Your task to perform on an android device: change the clock style Image 0: 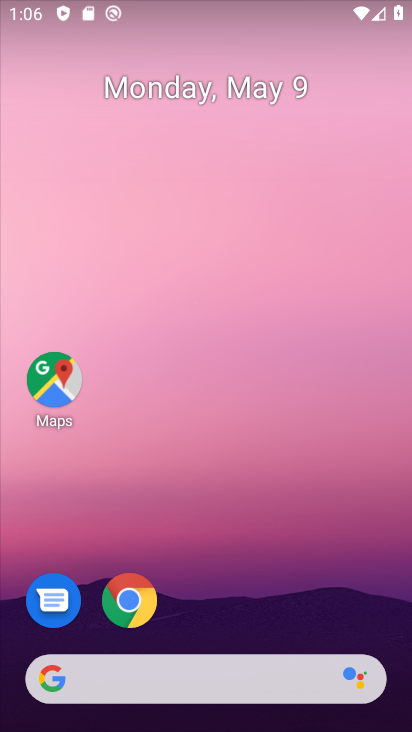
Step 0: press home button
Your task to perform on an android device: change the clock style Image 1: 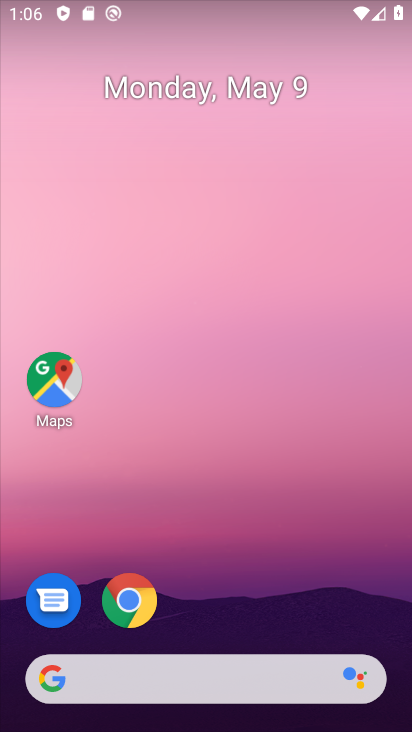
Step 1: drag from (239, 667) to (231, 218)
Your task to perform on an android device: change the clock style Image 2: 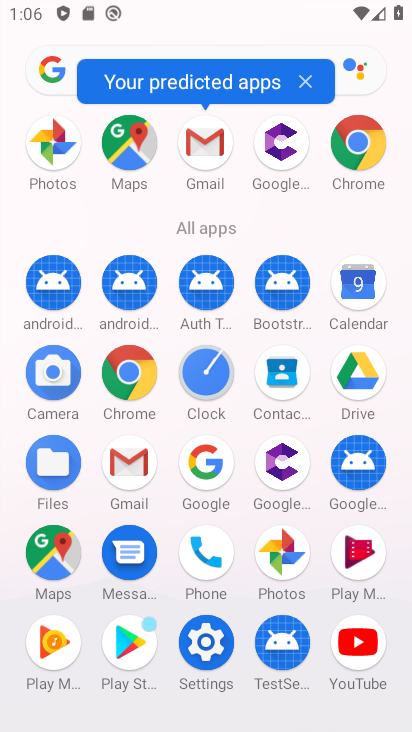
Step 2: click (212, 368)
Your task to perform on an android device: change the clock style Image 3: 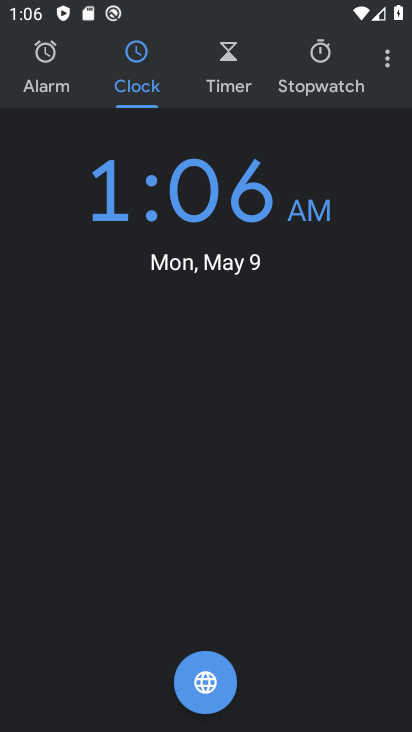
Step 3: click (385, 57)
Your task to perform on an android device: change the clock style Image 4: 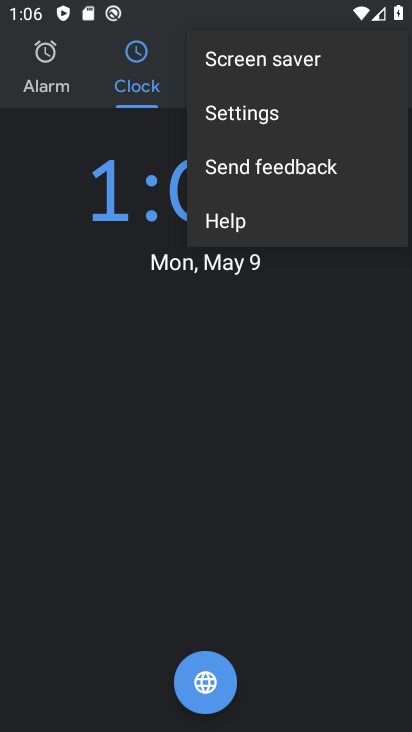
Step 4: click (249, 122)
Your task to perform on an android device: change the clock style Image 5: 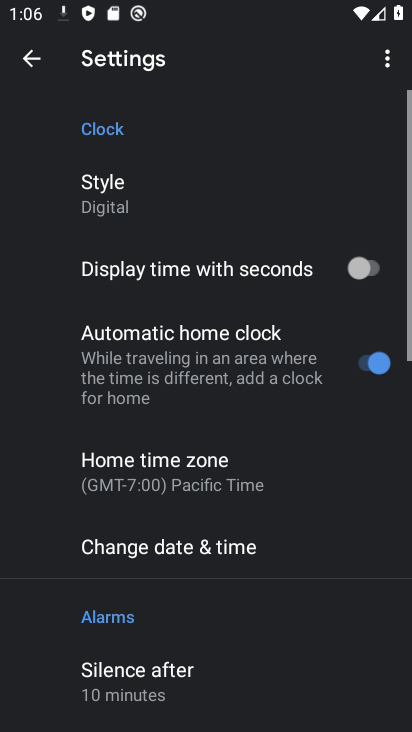
Step 5: click (120, 208)
Your task to perform on an android device: change the clock style Image 6: 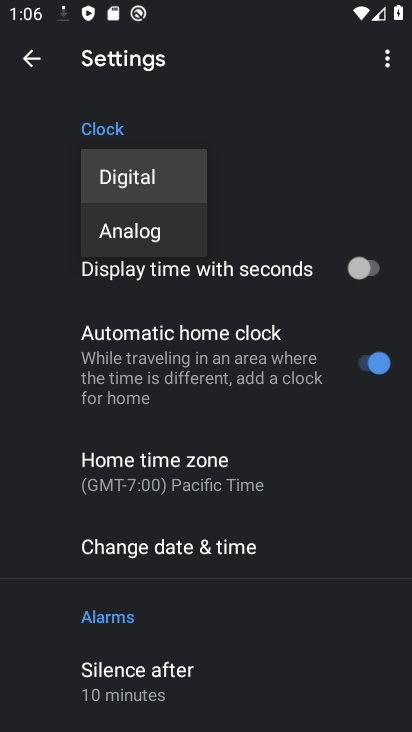
Step 6: click (143, 216)
Your task to perform on an android device: change the clock style Image 7: 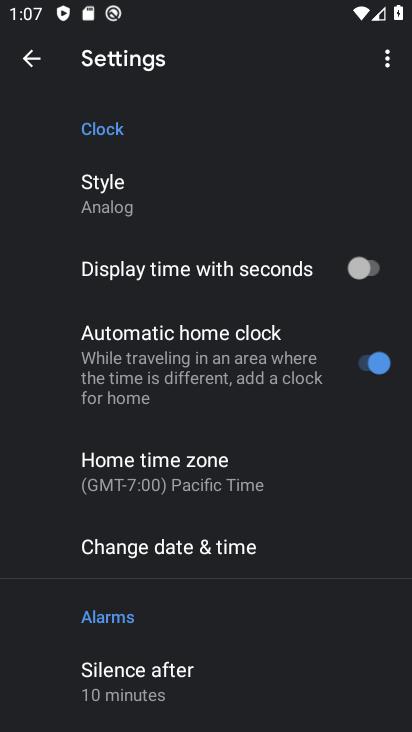
Step 7: task complete